Your task to perform on an android device: empty trash in google photos Image 0: 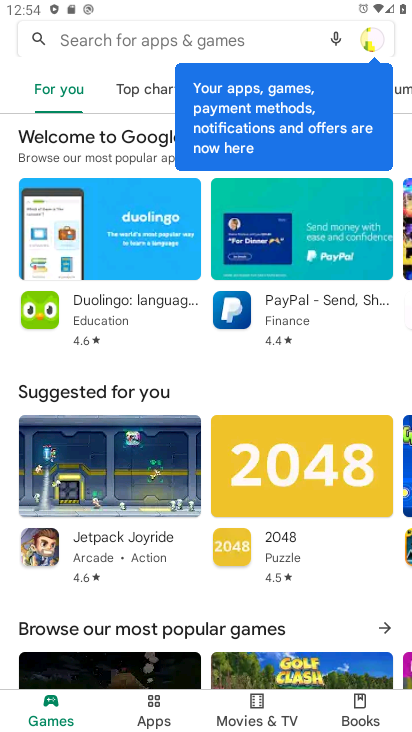
Step 0: press home button
Your task to perform on an android device: empty trash in google photos Image 1: 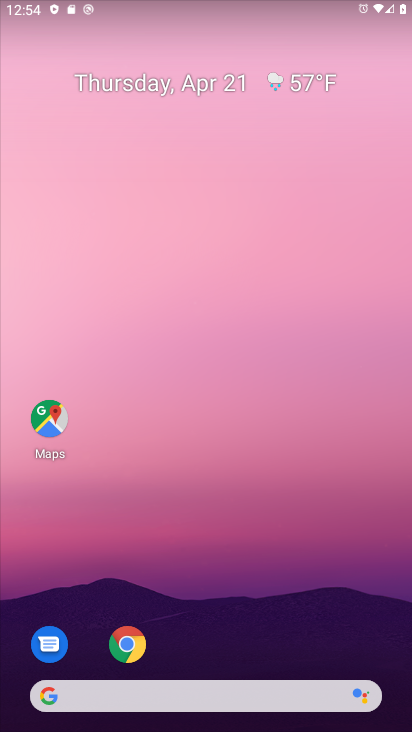
Step 1: drag from (213, 680) to (141, 41)
Your task to perform on an android device: empty trash in google photos Image 2: 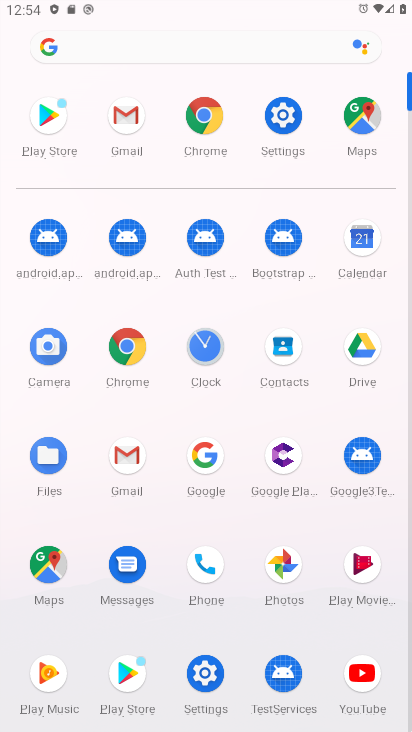
Step 2: click (288, 560)
Your task to perform on an android device: empty trash in google photos Image 3: 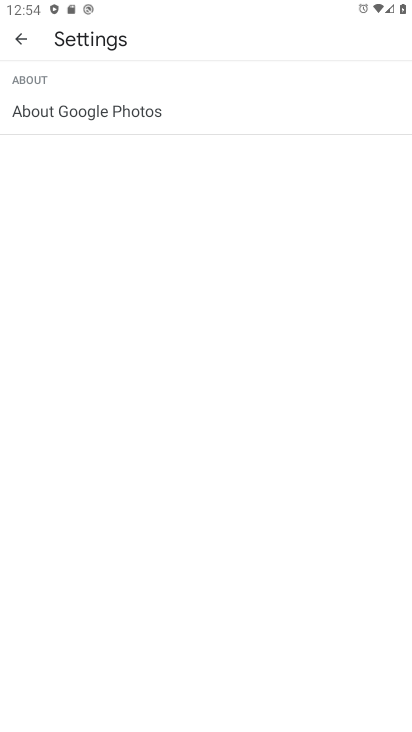
Step 3: click (13, 41)
Your task to perform on an android device: empty trash in google photos Image 4: 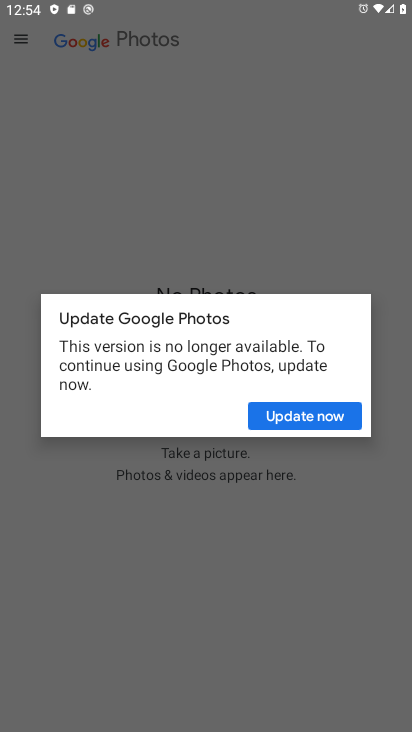
Step 4: click (316, 424)
Your task to perform on an android device: empty trash in google photos Image 5: 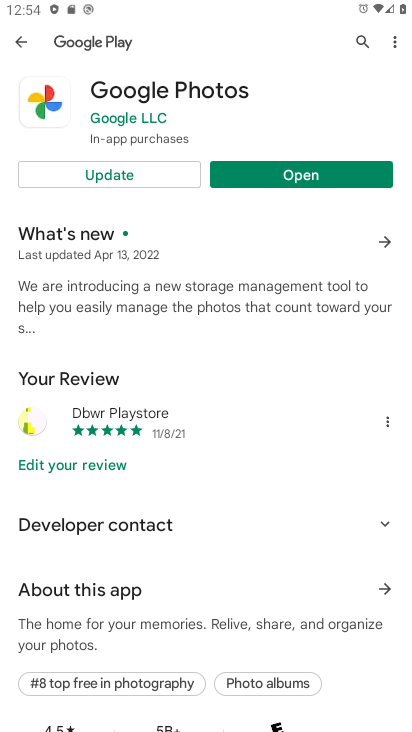
Step 5: click (257, 165)
Your task to perform on an android device: empty trash in google photos Image 6: 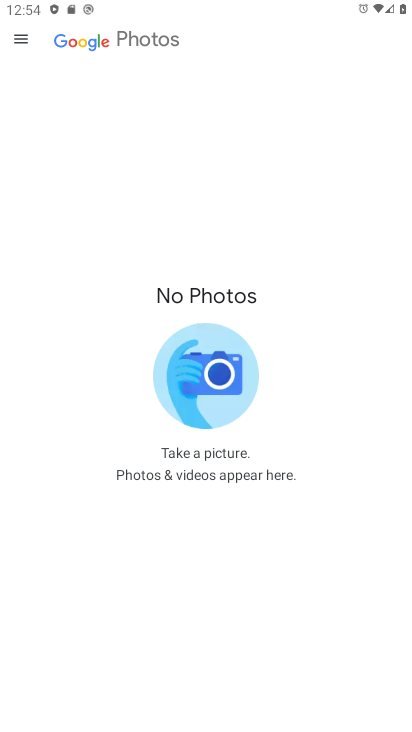
Step 6: click (17, 37)
Your task to perform on an android device: empty trash in google photos Image 7: 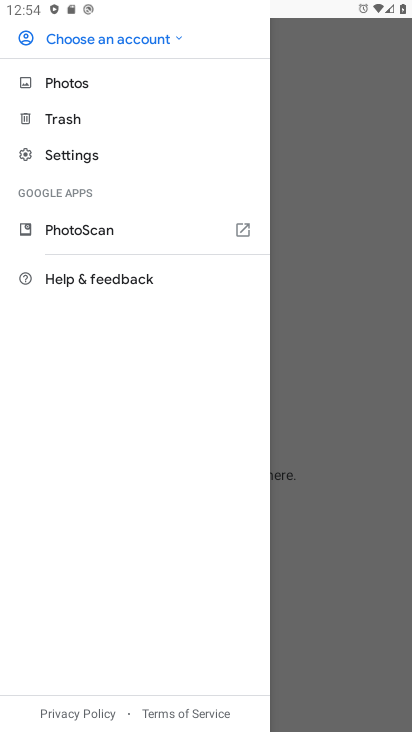
Step 7: click (62, 121)
Your task to perform on an android device: empty trash in google photos Image 8: 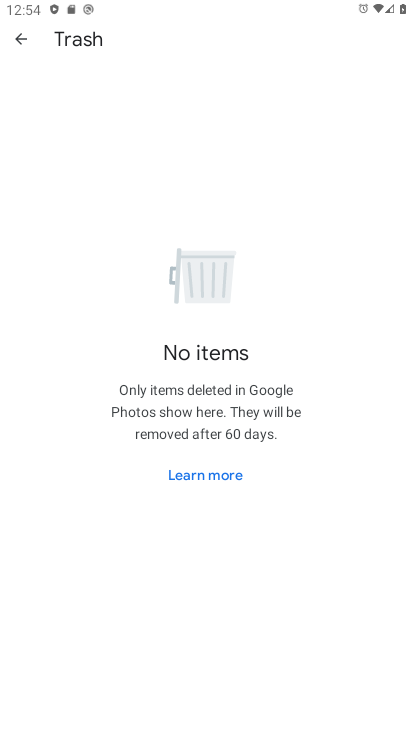
Step 8: task complete